Your task to perform on an android device: Show me the alarms in the clock app Image 0: 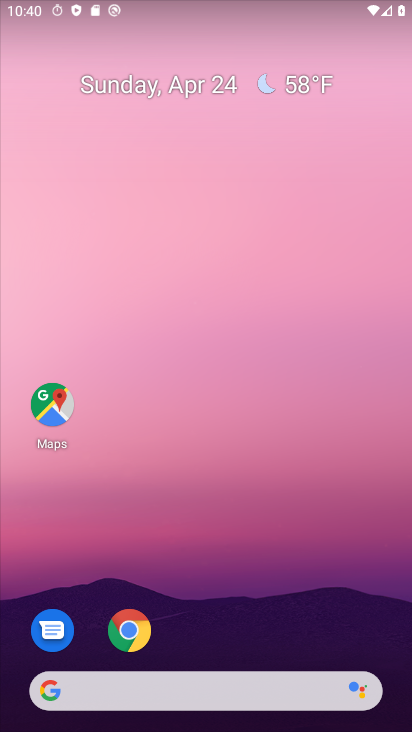
Step 0: drag from (171, 524) to (211, 13)
Your task to perform on an android device: Show me the alarms in the clock app Image 1: 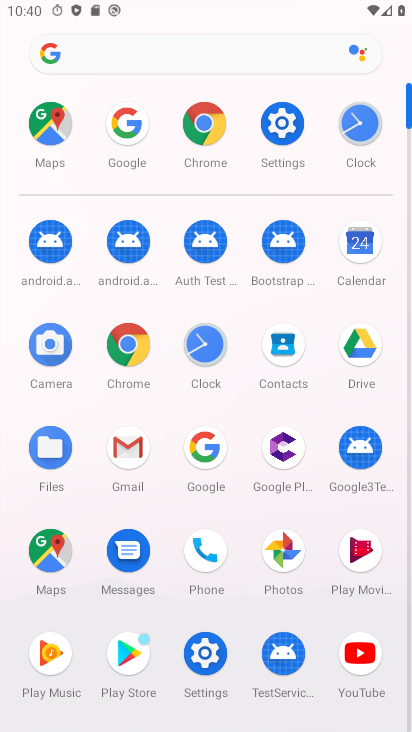
Step 1: click (214, 346)
Your task to perform on an android device: Show me the alarms in the clock app Image 2: 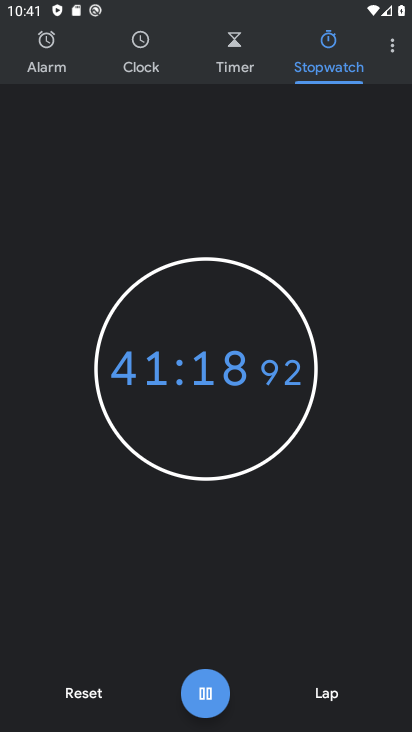
Step 2: click (46, 69)
Your task to perform on an android device: Show me the alarms in the clock app Image 3: 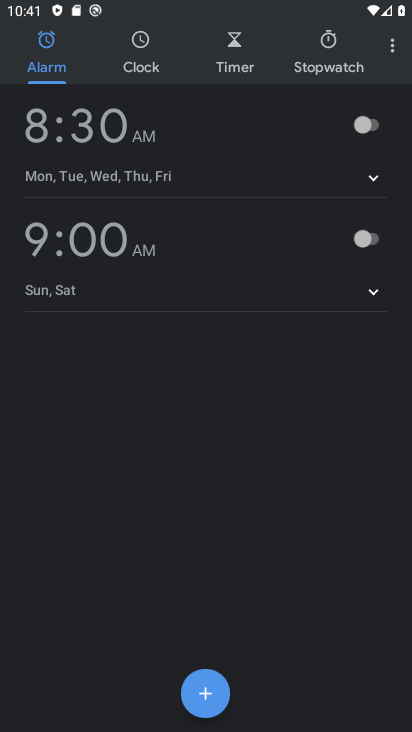
Step 3: task complete